Your task to perform on an android device: Open the map Image 0: 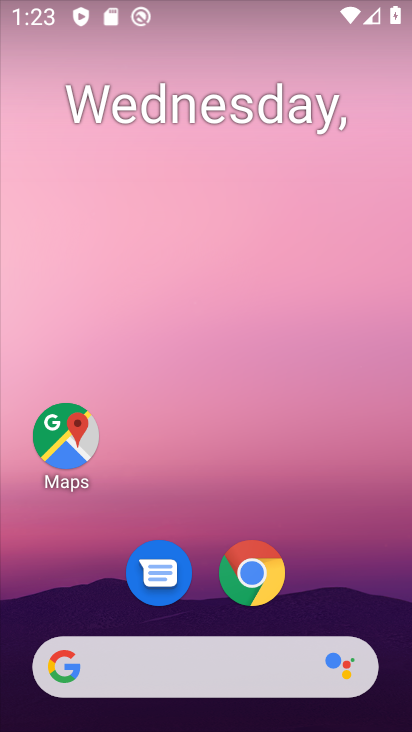
Step 0: click (67, 442)
Your task to perform on an android device: Open the map Image 1: 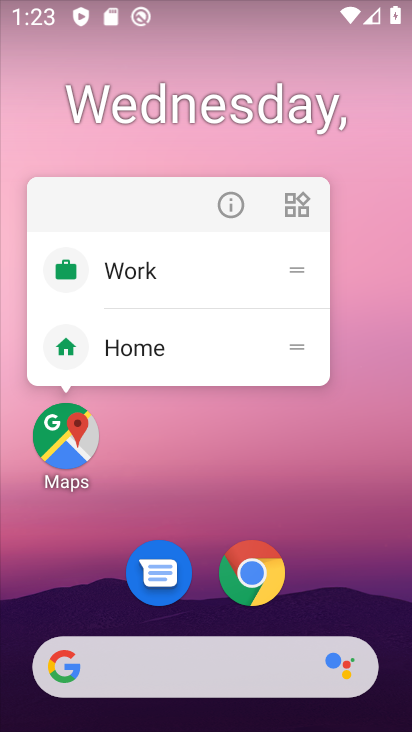
Step 1: click (136, 427)
Your task to perform on an android device: Open the map Image 2: 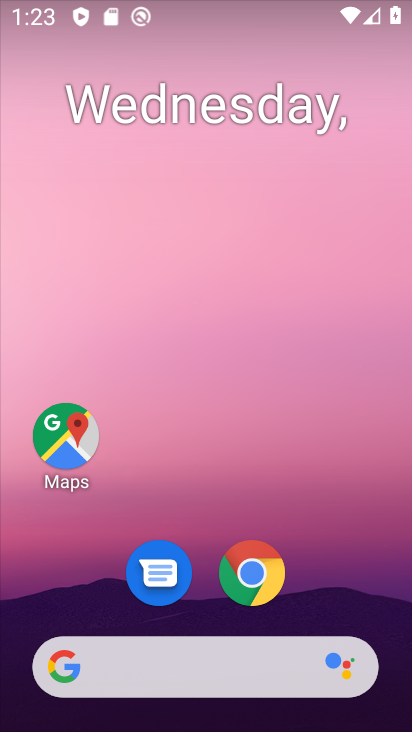
Step 2: click (74, 434)
Your task to perform on an android device: Open the map Image 3: 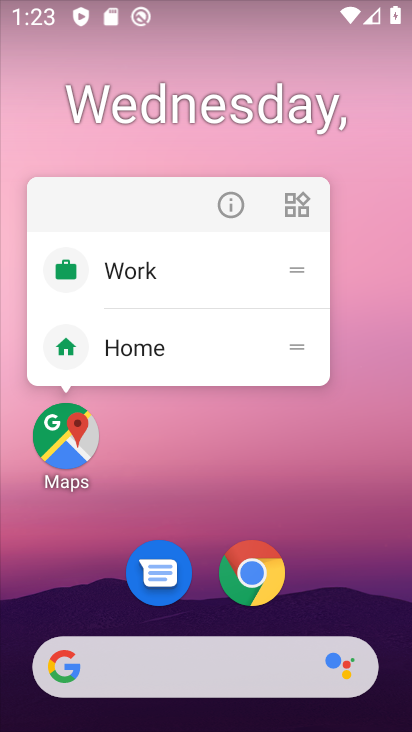
Step 3: click (74, 434)
Your task to perform on an android device: Open the map Image 4: 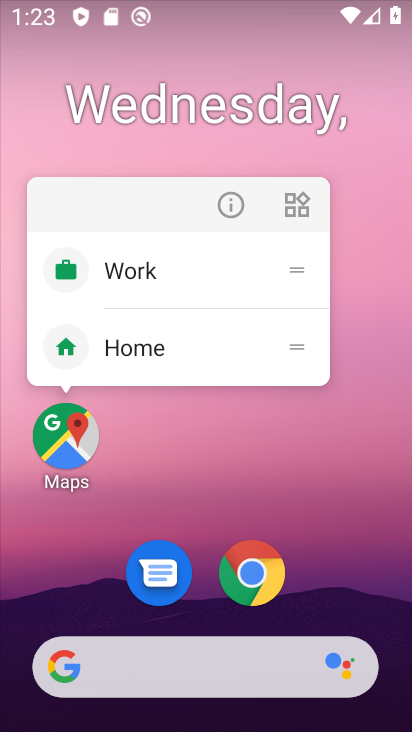
Step 4: click (74, 434)
Your task to perform on an android device: Open the map Image 5: 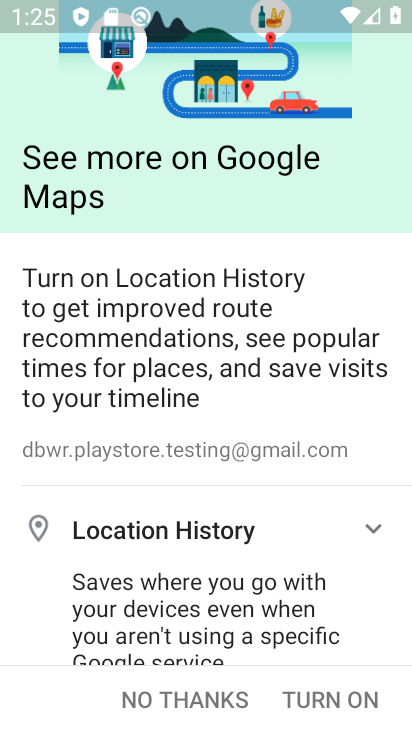
Step 5: task complete